Your task to perform on an android device: choose inbox layout in the gmail app Image 0: 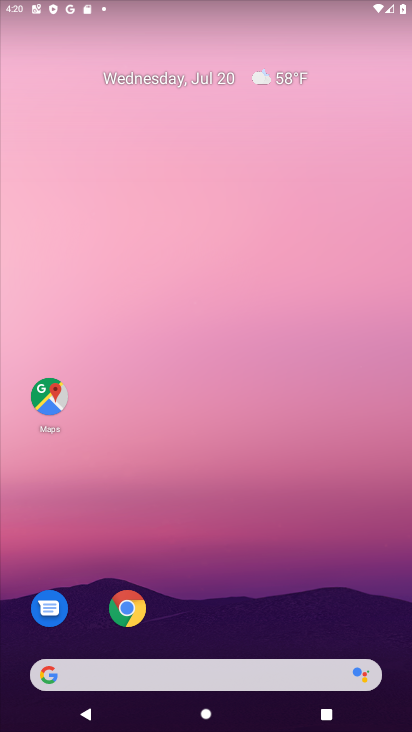
Step 0: drag from (210, 622) to (173, 115)
Your task to perform on an android device: choose inbox layout in the gmail app Image 1: 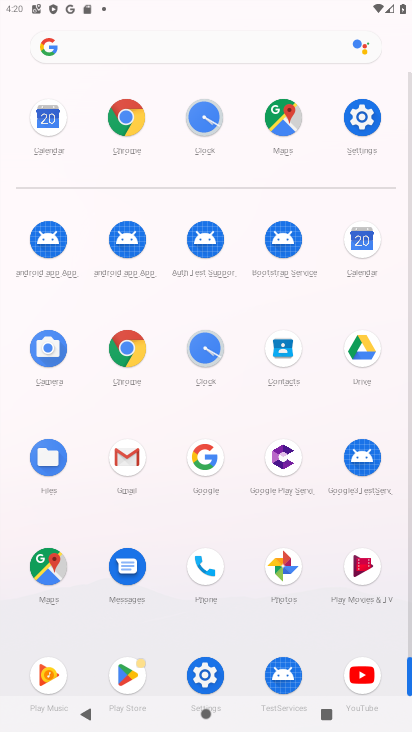
Step 1: click (124, 470)
Your task to perform on an android device: choose inbox layout in the gmail app Image 2: 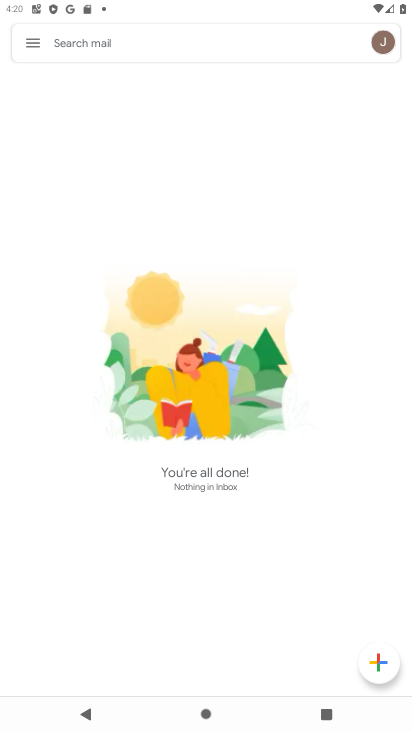
Step 2: click (33, 43)
Your task to perform on an android device: choose inbox layout in the gmail app Image 3: 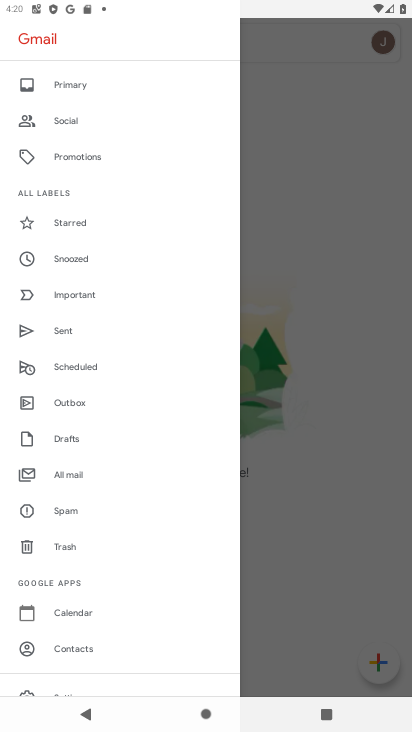
Step 3: drag from (92, 613) to (117, 194)
Your task to perform on an android device: choose inbox layout in the gmail app Image 4: 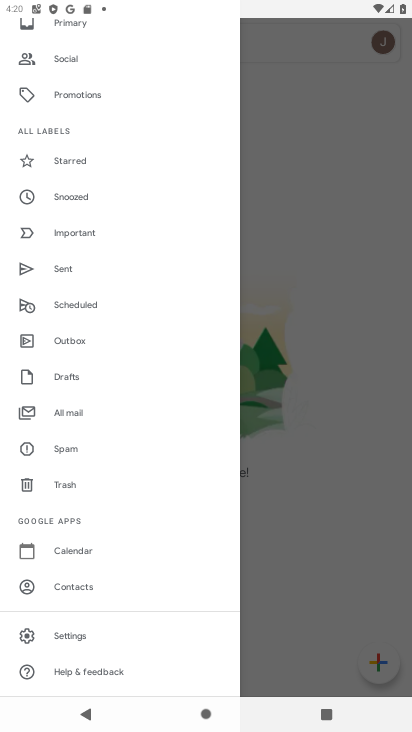
Step 4: click (47, 637)
Your task to perform on an android device: choose inbox layout in the gmail app Image 5: 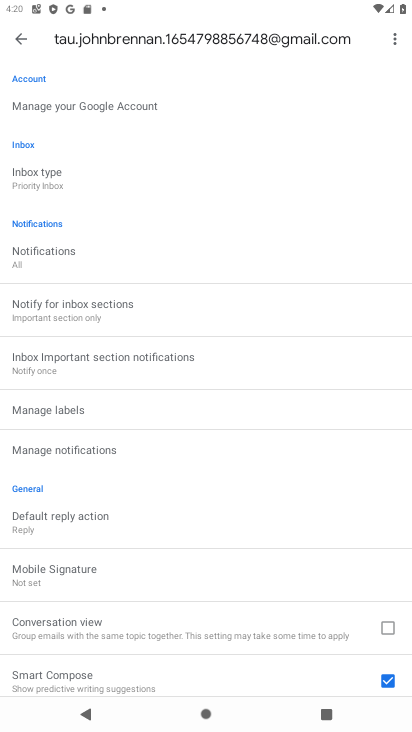
Step 5: click (45, 174)
Your task to perform on an android device: choose inbox layout in the gmail app Image 6: 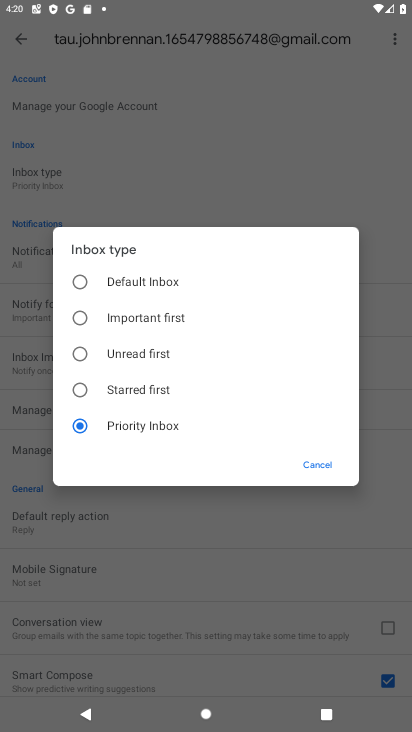
Step 6: click (131, 281)
Your task to perform on an android device: choose inbox layout in the gmail app Image 7: 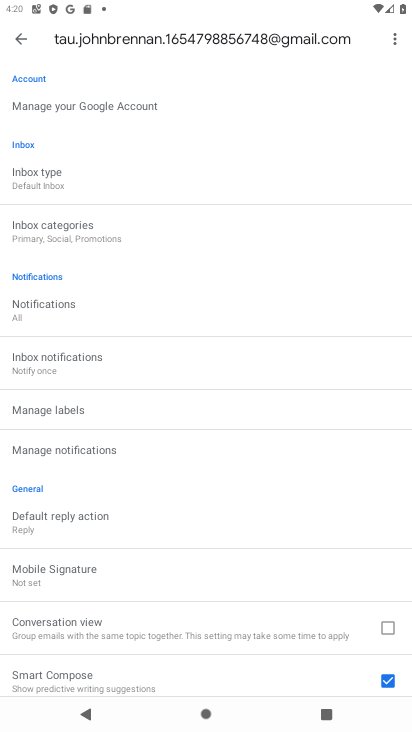
Step 7: task complete